Your task to perform on an android device: turn on wifi Image 0: 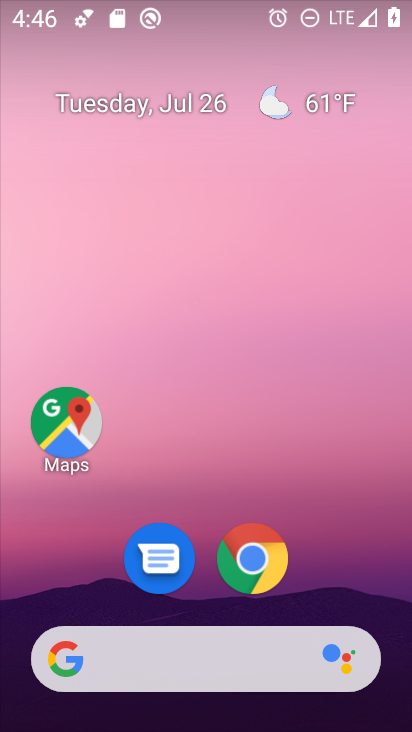
Step 0: drag from (137, 18) to (235, 585)
Your task to perform on an android device: turn on wifi Image 1: 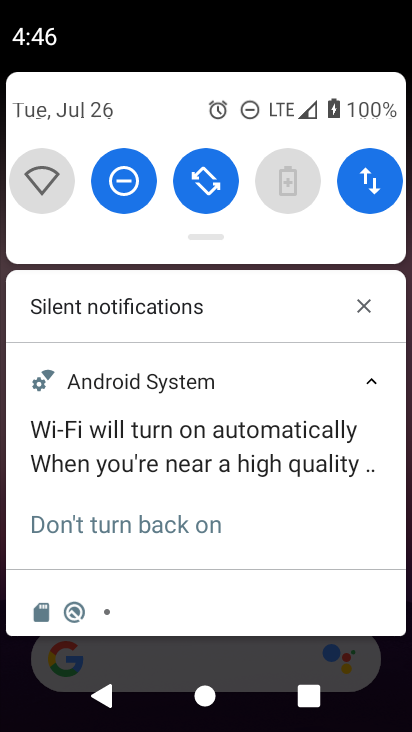
Step 1: click (46, 182)
Your task to perform on an android device: turn on wifi Image 2: 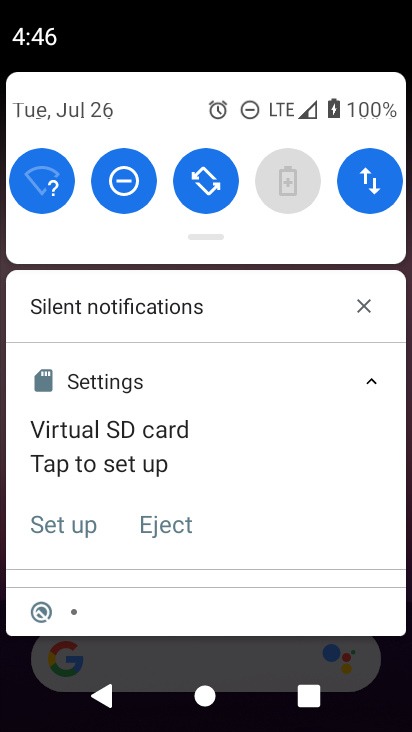
Step 2: task complete